Your task to perform on an android device: change the clock display to show seconds Image 0: 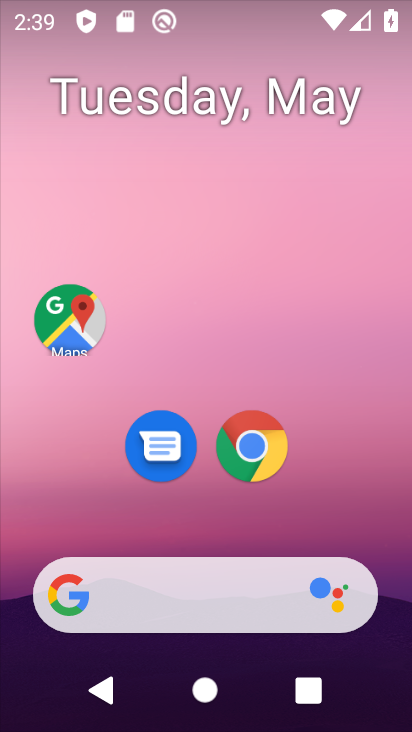
Step 0: drag from (353, 499) to (304, 193)
Your task to perform on an android device: change the clock display to show seconds Image 1: 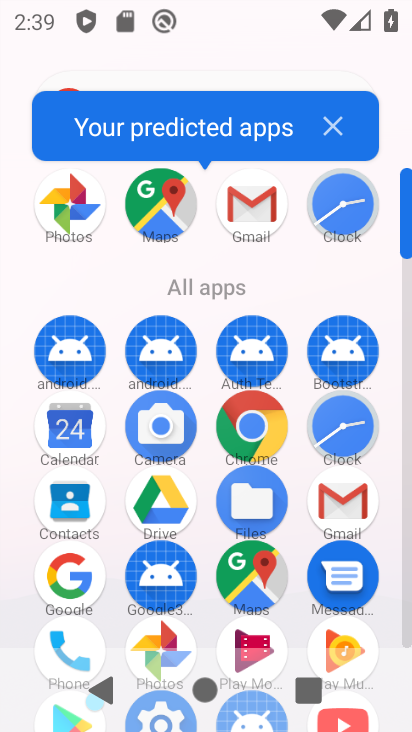
Step 1: click (352, 440)
Your task to perform on an android device: change the clock display to show seconds Image 2: 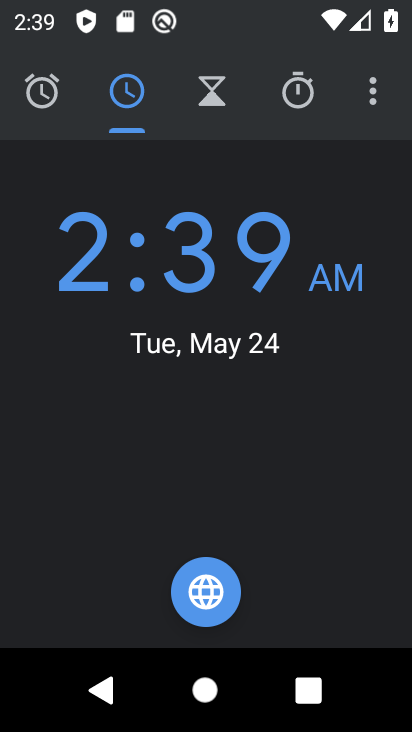
Step 2: click (372, 104)
Your task to perform on an android device: change the clock display to show seconds Image 3: 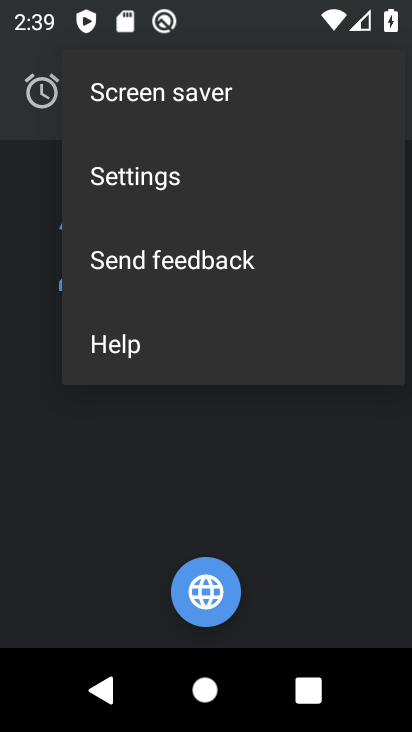
Step 3: click (176, 189)
Your task to perform on an android device: change the clock display to show seconds Image 4: 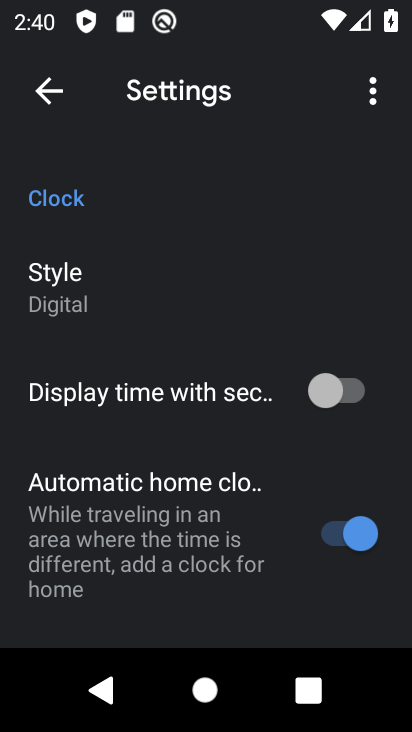
Step 4: click (340, 391)
Your task to perform on an android device: change the clock display to show seconds Image 5: 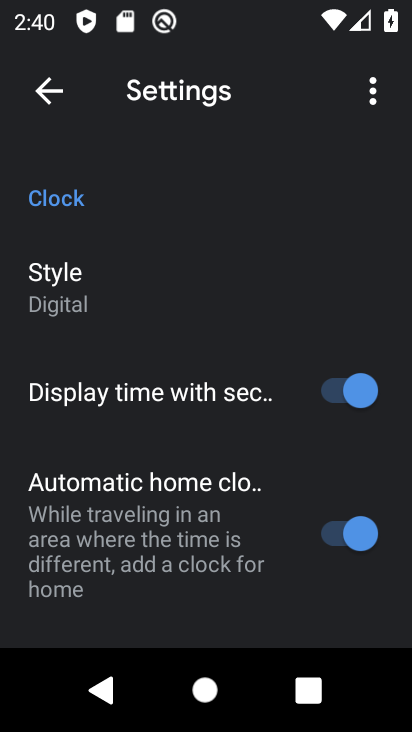
Step 5: task complete